Your task to perform on an android device: turn on location history Image 0: 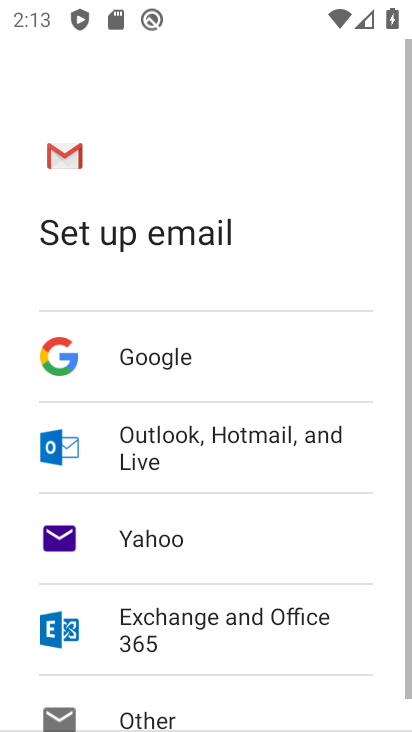
Step 0: press home button
Your task to perform on an android device: turn on location history Image 1: 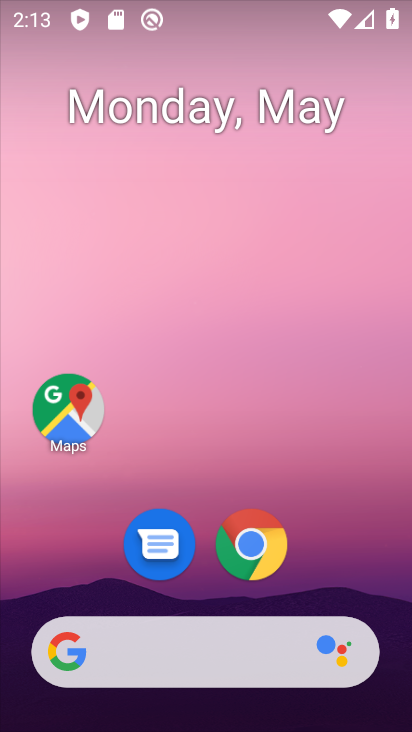
Step 1: drag from (198, 589) to (181, 237)
Your task to perform on an android device: turn on location history Image 2: 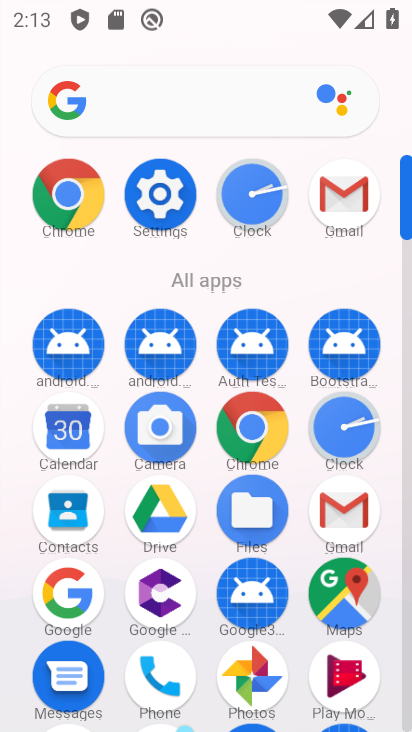
Step 2: click (171, 228)
Your task to perform on an android device: turn on location history Image 3: 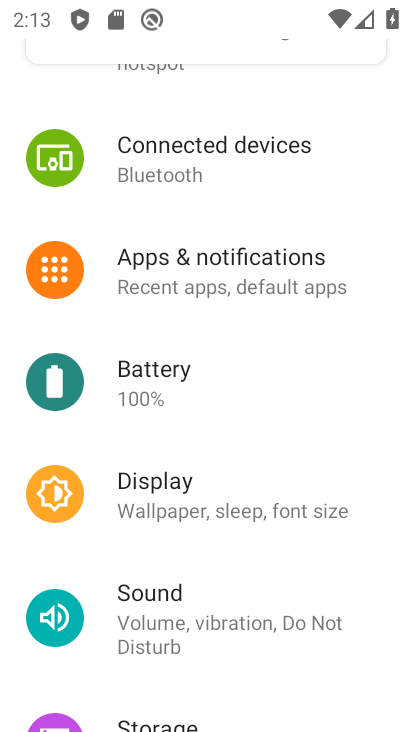
Step 3: drag from (187, 653) to (201, 325)
Your task to perform on an android device: turn on location history Image 4: 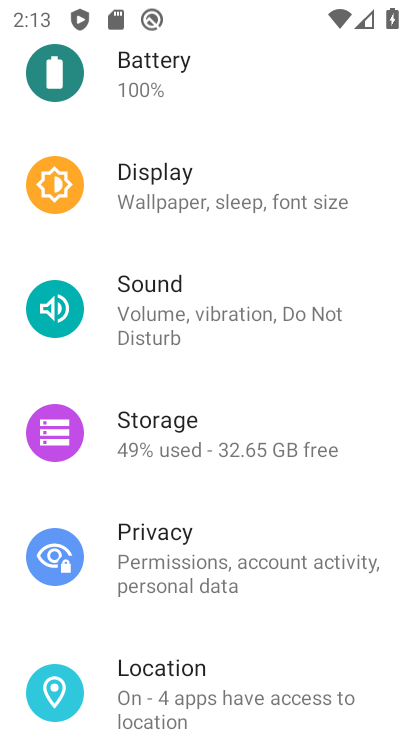
Step 4: drag from (210, 609) to (242, 403)
Your task to perform on an android device: turn on location history Image 5: 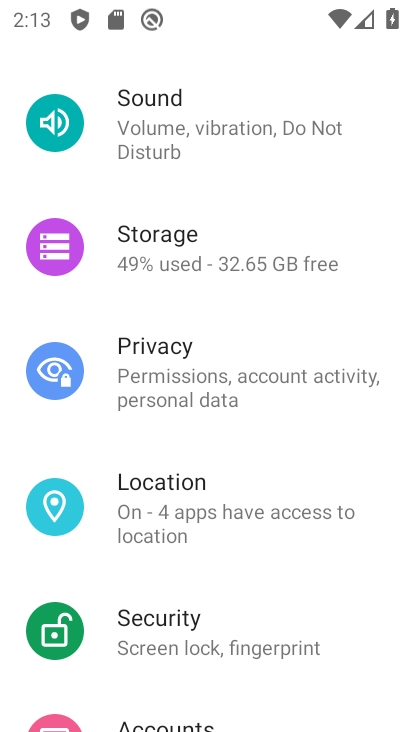
Step 5: click (225, 495)
Your task to perform on an android device: turn on location history Image 6: 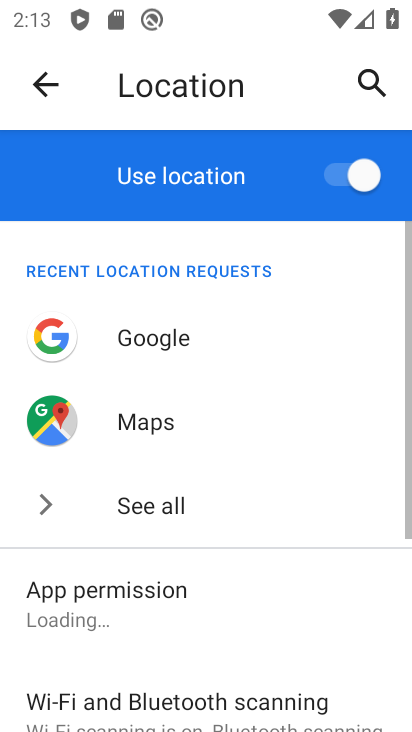
Step 6: drag from (218, 580) to (245, 334)
Your task to perform on an android device: turn on location history Image 7: 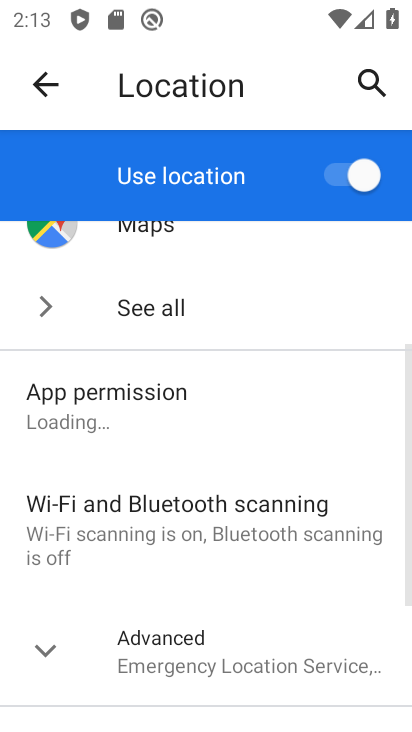
Step 7: drag from (262, 543) to (274, 329)
Your task to perform on an android device: turn on location history Image 8: 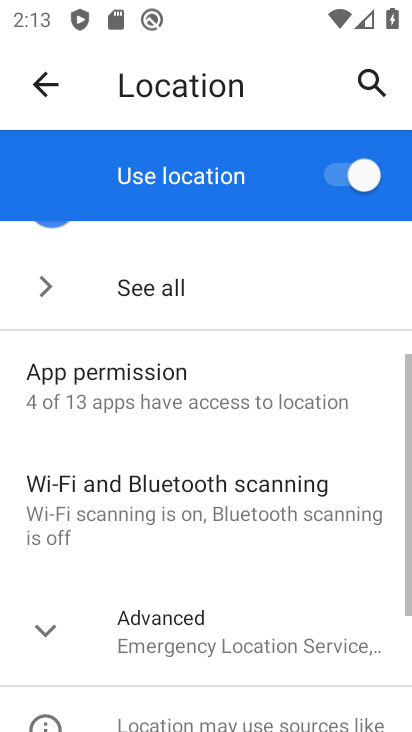
Step 8: drag from (250, 628) to (255, 385)
Your task to perform on an android device: turn on location history Image 9: 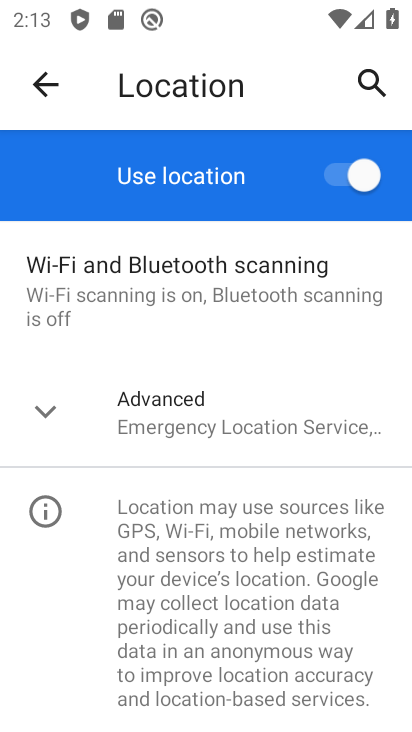
Step 9: click (226, 399)
Your task to perform on an android device: turn on location history Image 10: 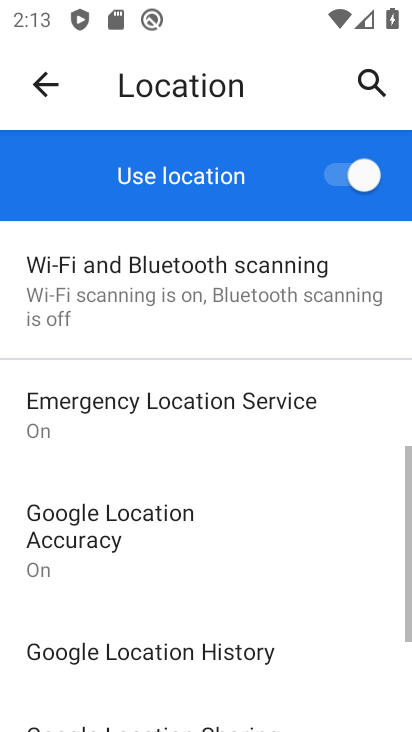
Step 10: drag from (229, 578) to (249, 394)
Your task to perform on an android device: turn on location history Image 11: 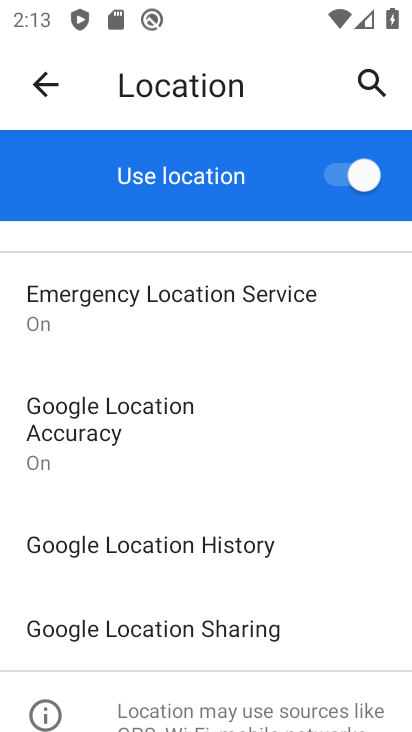
Step 11: click (204, 565)
Your task to perform on an android device: turn on location history Image 12: 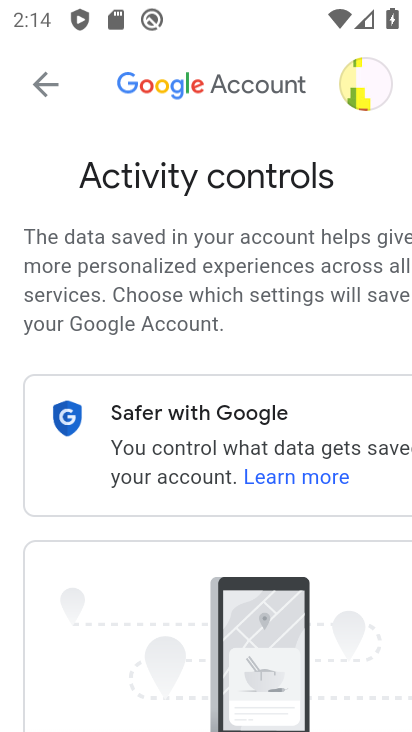
Step 12: drag from (210, 584) to (219, 328)
Your task to perform on an android device: turn on location history Image 13: 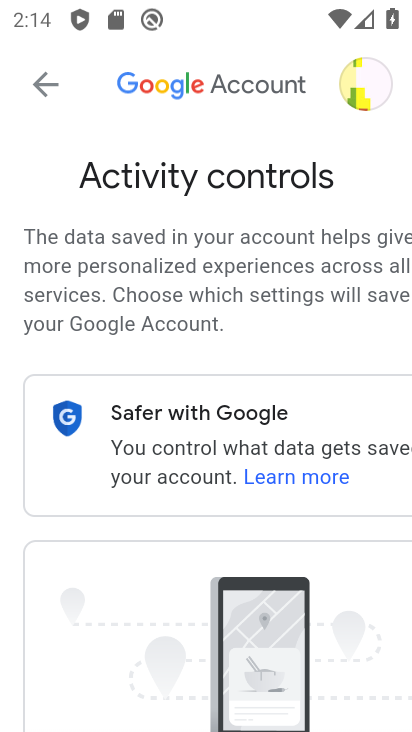
Step 13: drag from (190, 531) to (222, 299)
Your task to perform on an android device: turn on location history Image 14: 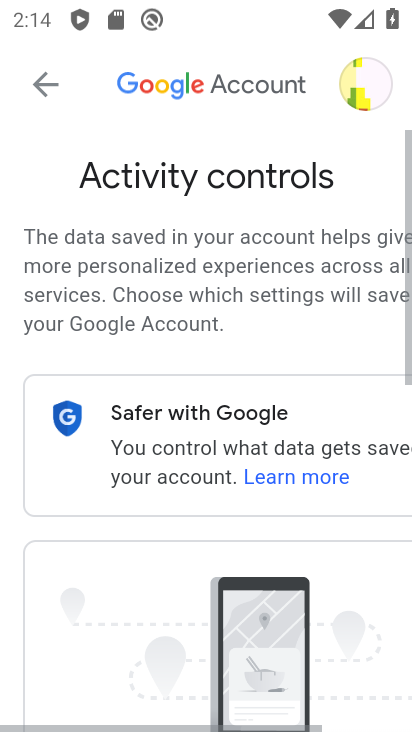
Step 14: drag from (214, 522) to (268, 291)
Your task to perform on an android device: turn on location history Image 15: 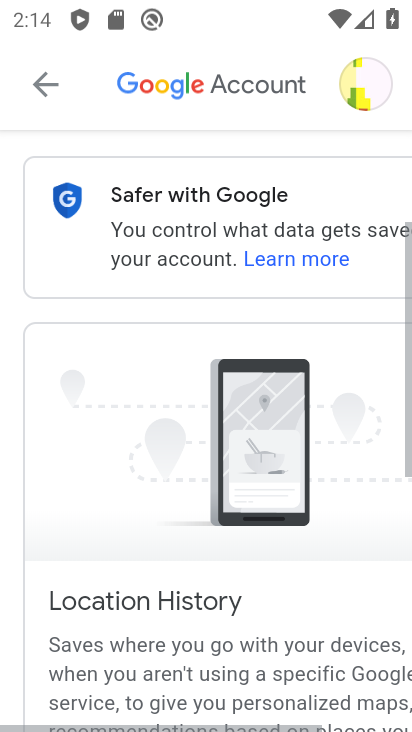
Step 15: drag from (276, 482) to (284, 251)
Your task to perform on an android device: turn on location history Image 16: 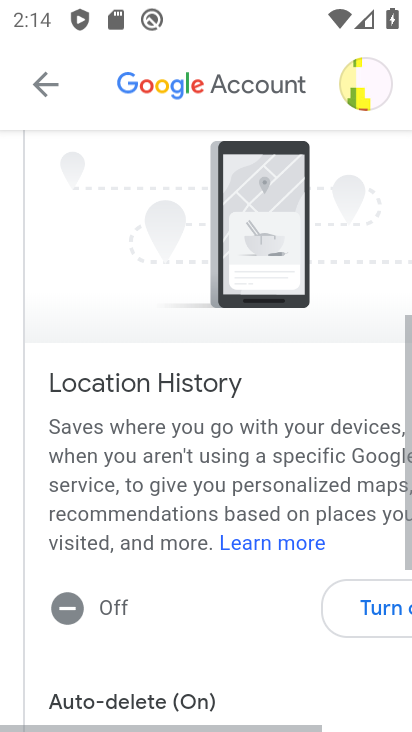
Step 16: drag from (254, 481) to (264, 274)
Your task to perform on an android device: turn on location history Image 17: 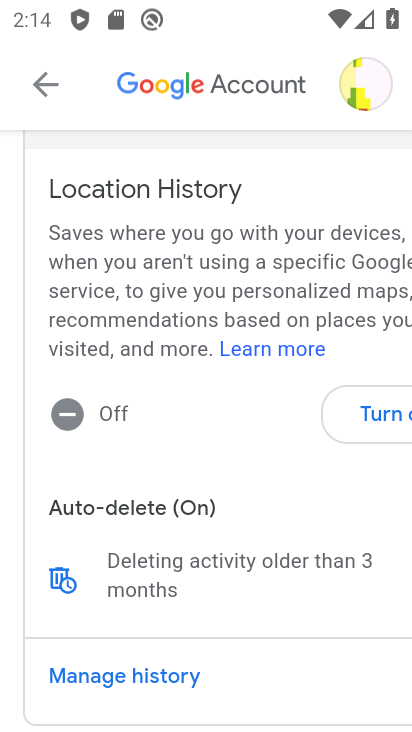
Step 17: click (357, 419)
Your task to perform on an android device: turn on location history Image 18: 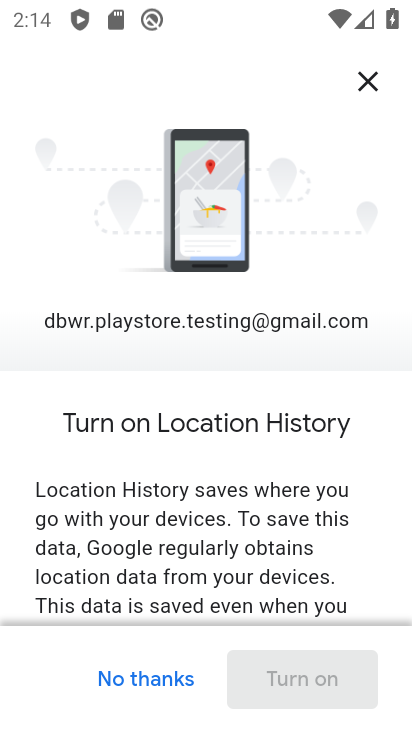
Step 18: task complete